Your task to perform on an android device: Open Google Chrome Image 0: 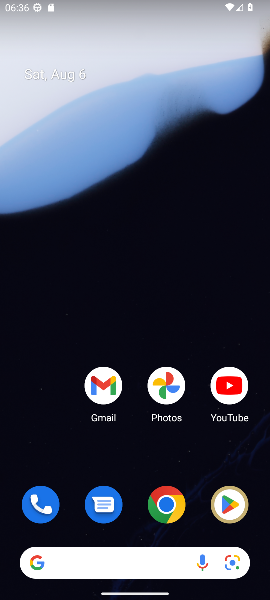
Step 0: click (165, 507)
Your task to perform on an android device: Open Google Chrome Image 1: 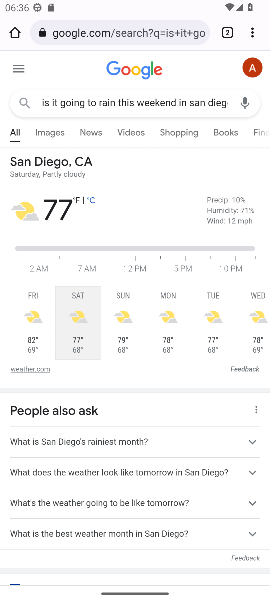
Step 1: task complete